Your task to perform on an android device: set default search engine in the chrome app Image 0: 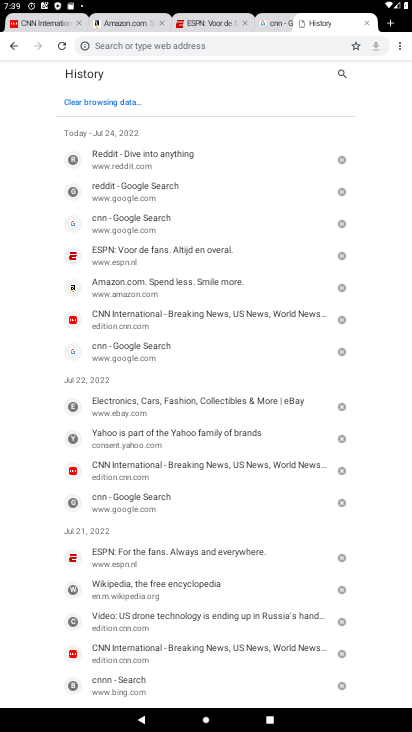
Step 0: click (277, 657)
Your task to perform on an android device: set default search engine in the chrome app Image 1: 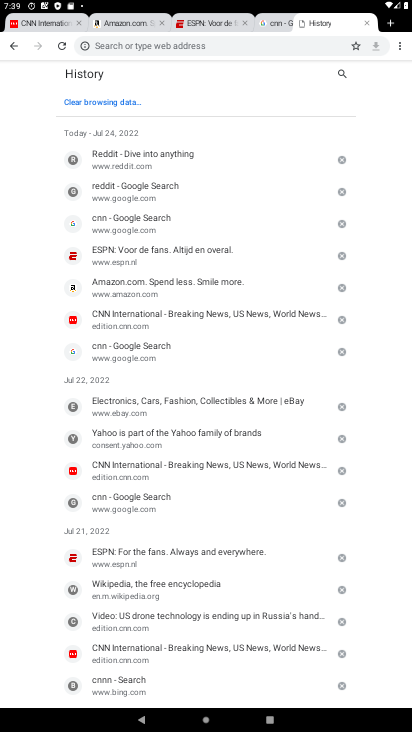
Step 1: press home button
Your task to perform on an android device: set default search engine in the chrome app Image 2: 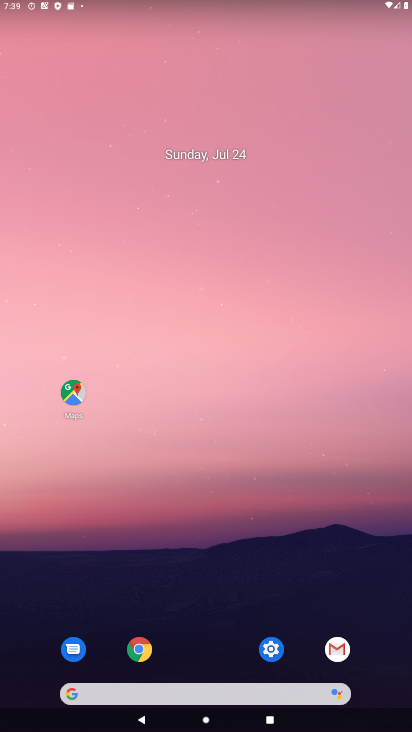
Step 2: click (142, 653)
Your task to perform on an android device: set default search engine in the chrome app Image 3: 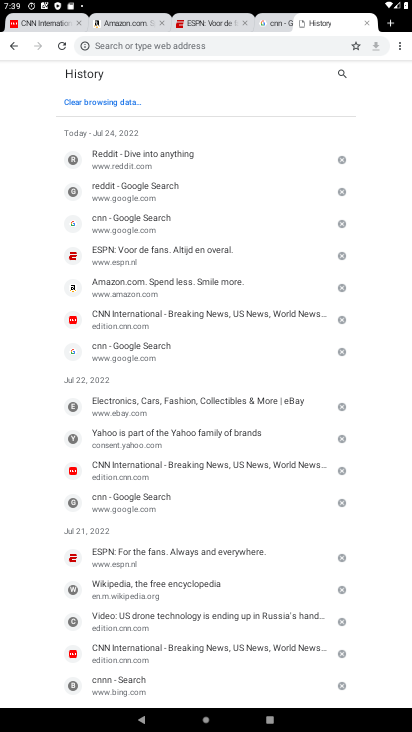
Step 3: click (397, 54)
Your task to perform on an android device: set default search engine in the chrome app Image 4: 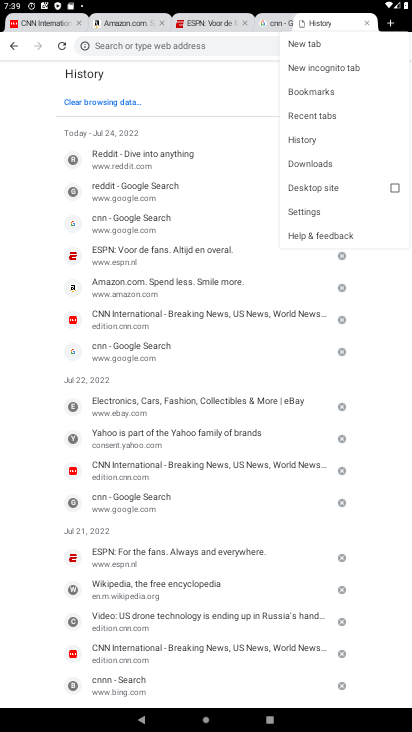
Step 4: click (312, 216)
Your task to perform on an android device: set default search engine in the chrome app Image 5: 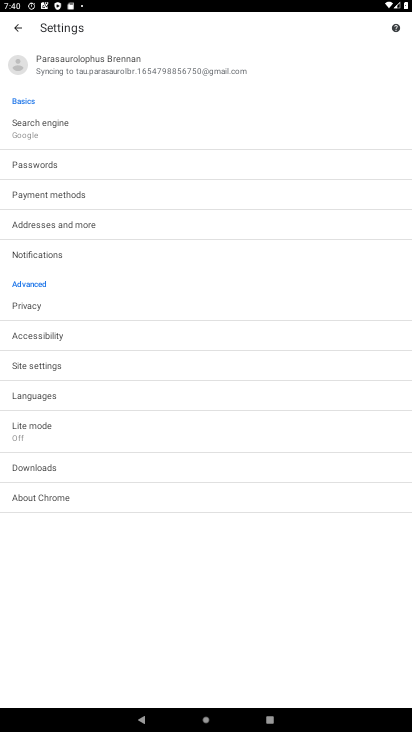
Step 5: click (58, 133)
Your task to perform on an android device: set default search engine in the chrome app Image 6: 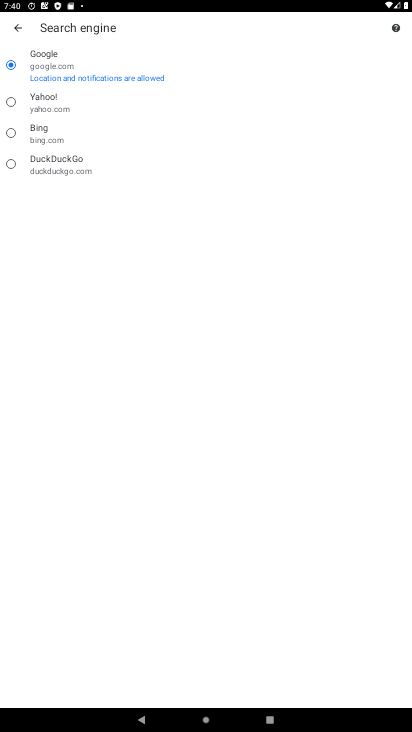
Step 6: task complete